Your task to perform on an android device: Add asus zenbook to the cart on ebay.com Image 0: 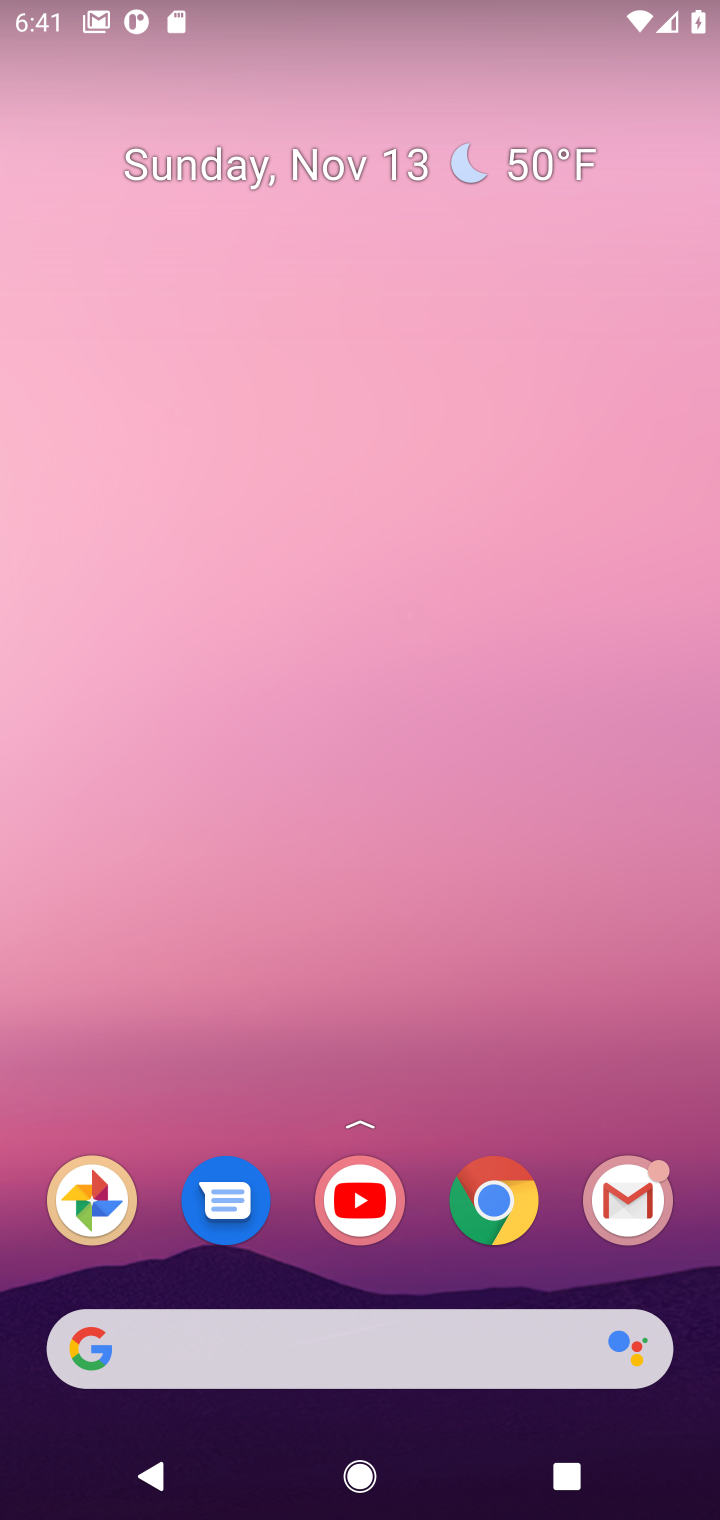
Step 0: click (483, 1218)
Your task to perform on an android device: Add asus zenbook to the cart on ebay.com Image 1: 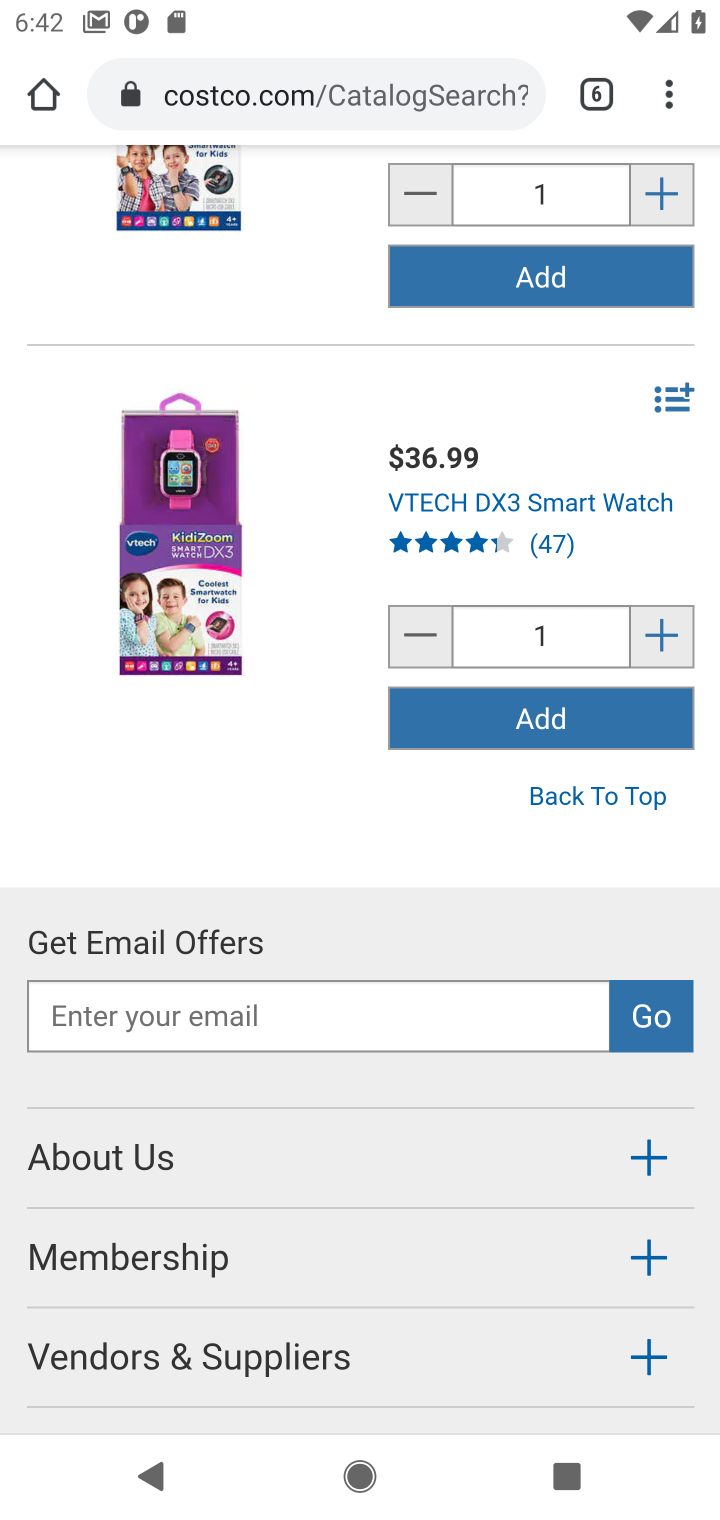
Step 1: click (606, 105)
Your task to perform on an android device: Add asus zenbook to the cart on ebay.com Image 2: 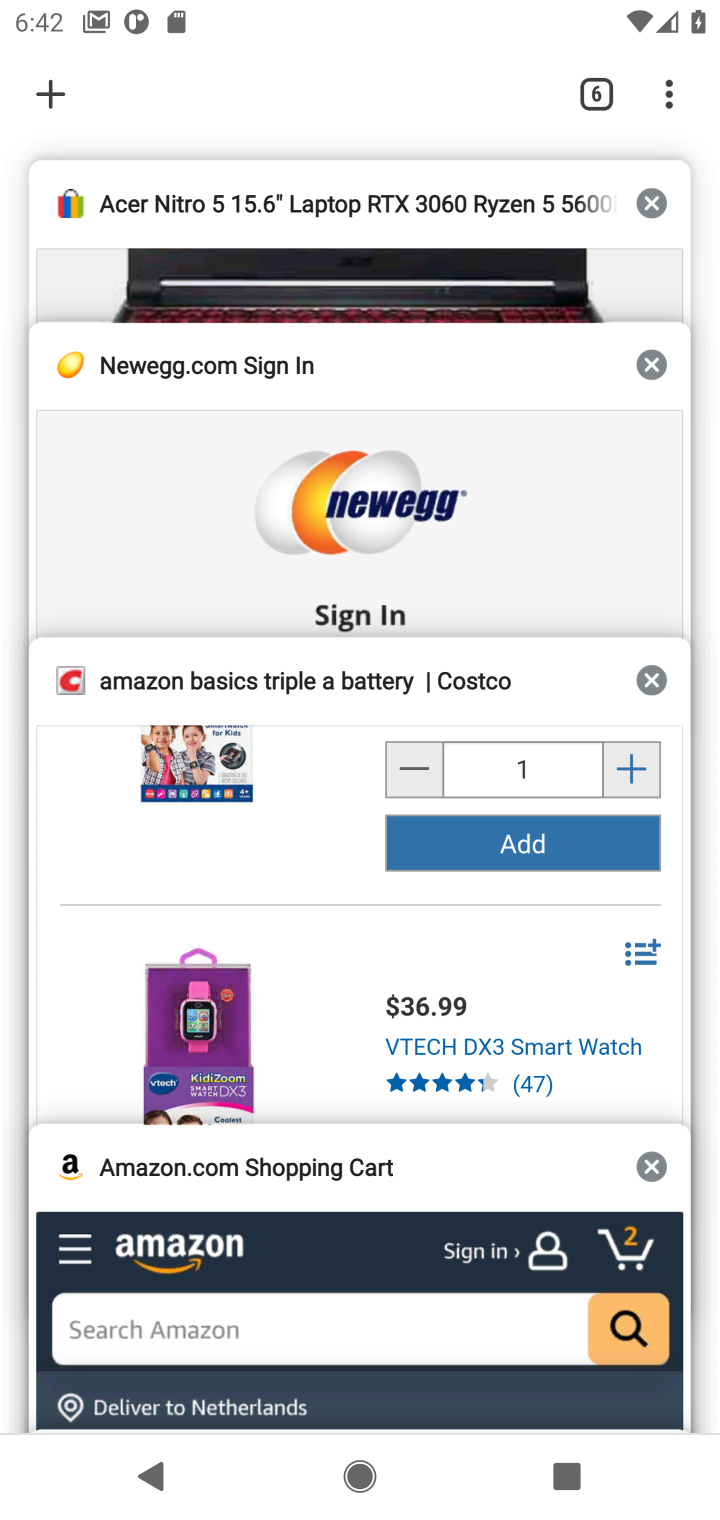
Step 2: click (269, 242)
Your task to perform on an android device: Add asus zenbook to the cart on ebay.com Image 3: 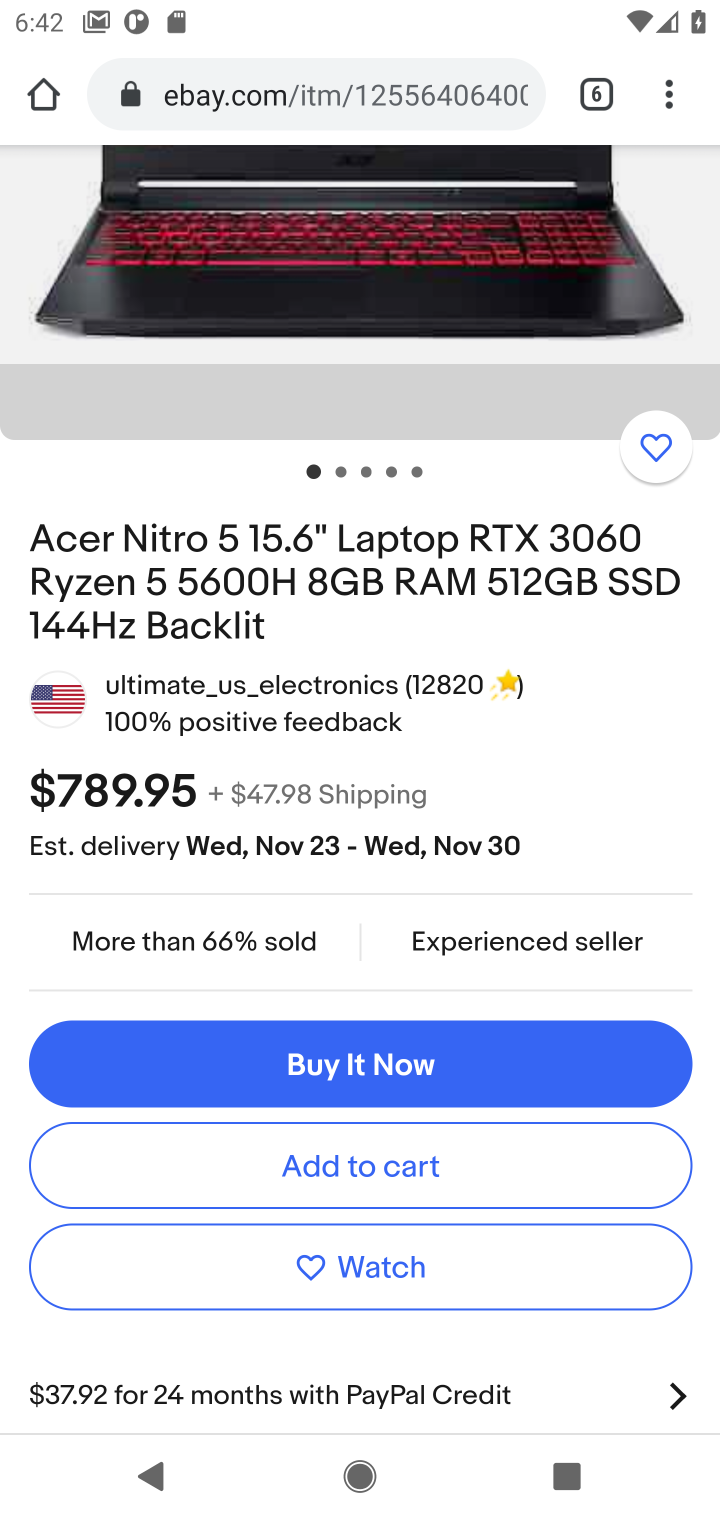
Step 3: drag from (327, 368) to (220, 1293)
Your task to perform on an android device: Add asus zenbook to the cart on ebay.com Image 4: 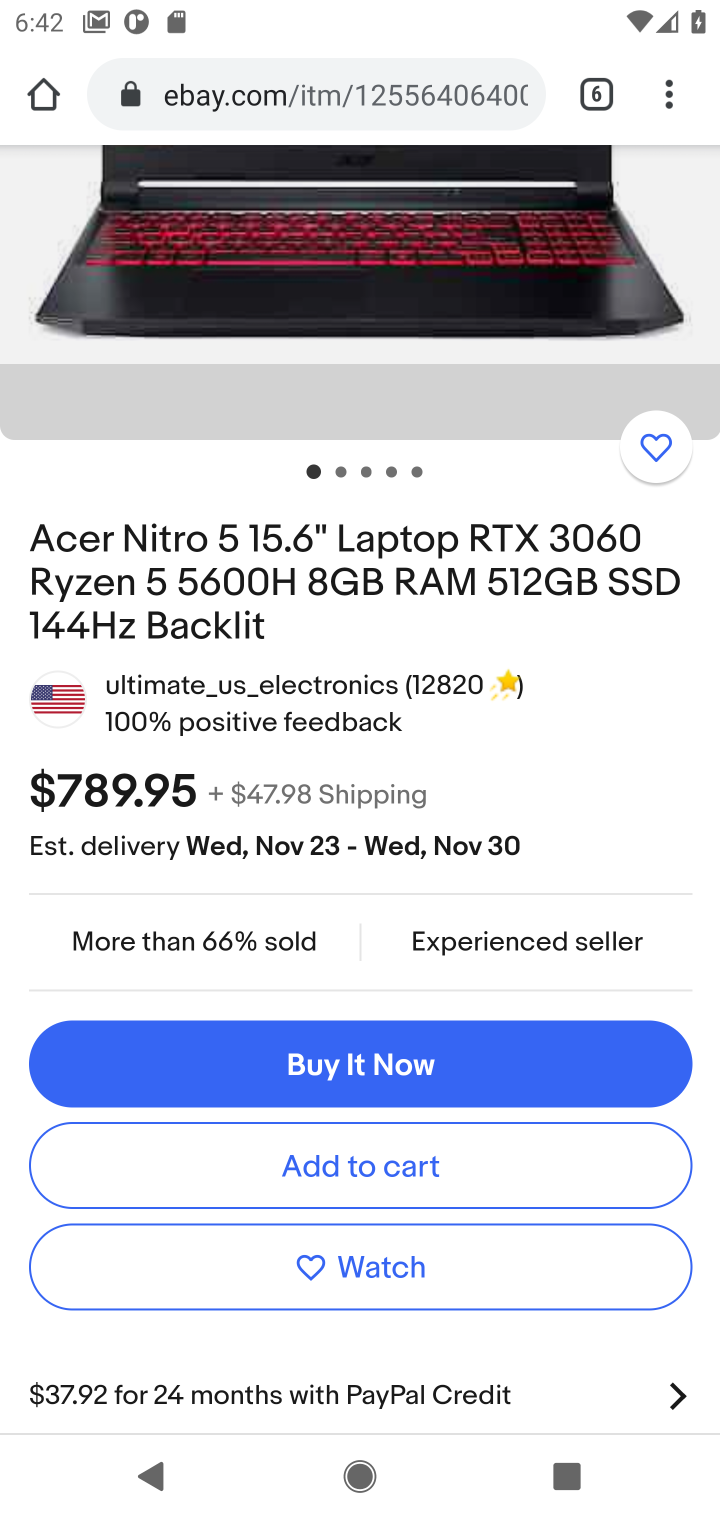
Step 4: drag from (495, 209) to (489, 789)
Your task to perform on an android device: Add asus zenbook to the cart on ebay.com Image 5: 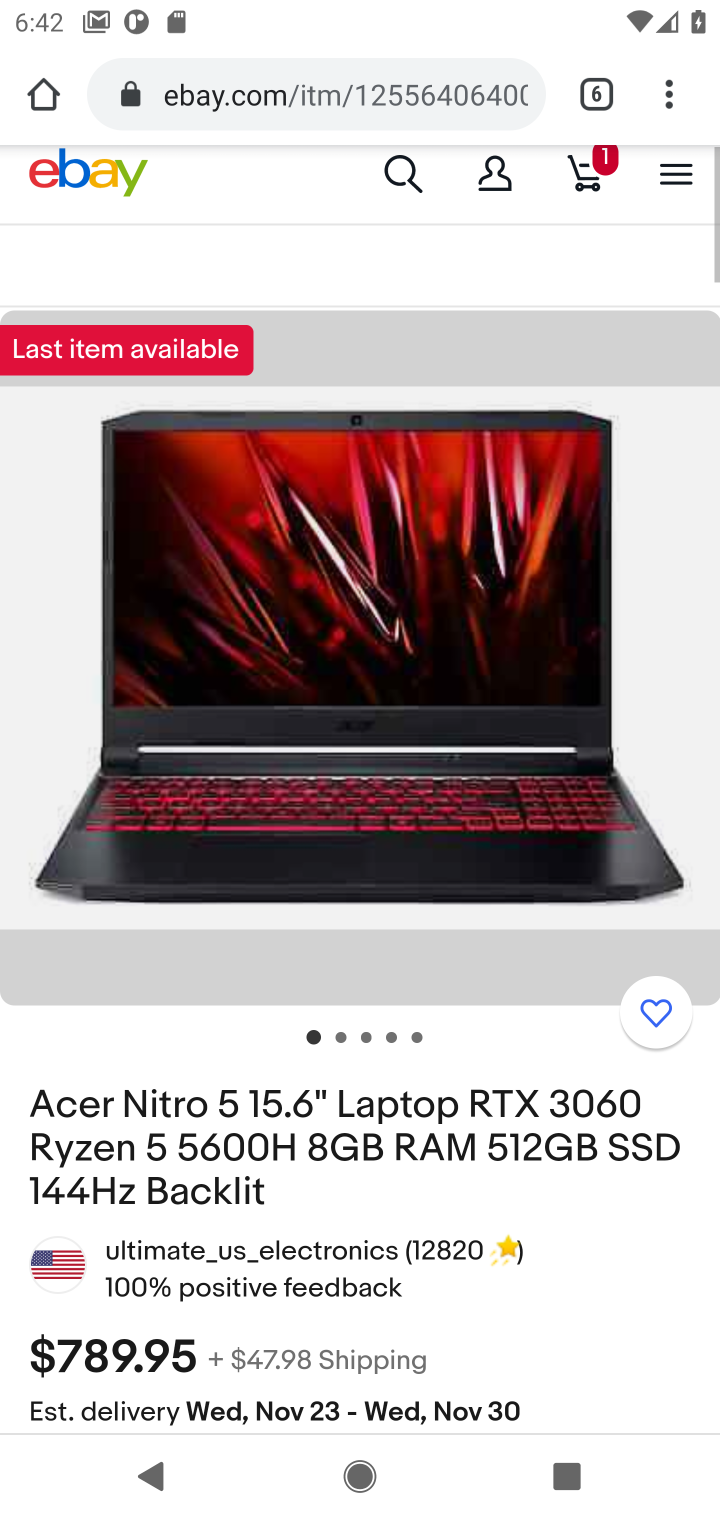
Step 5: drag from (585, 190) to (438, 842)
Your task to perform on an android device: Add asus zenbook to the cart on ebay.com Image 6: 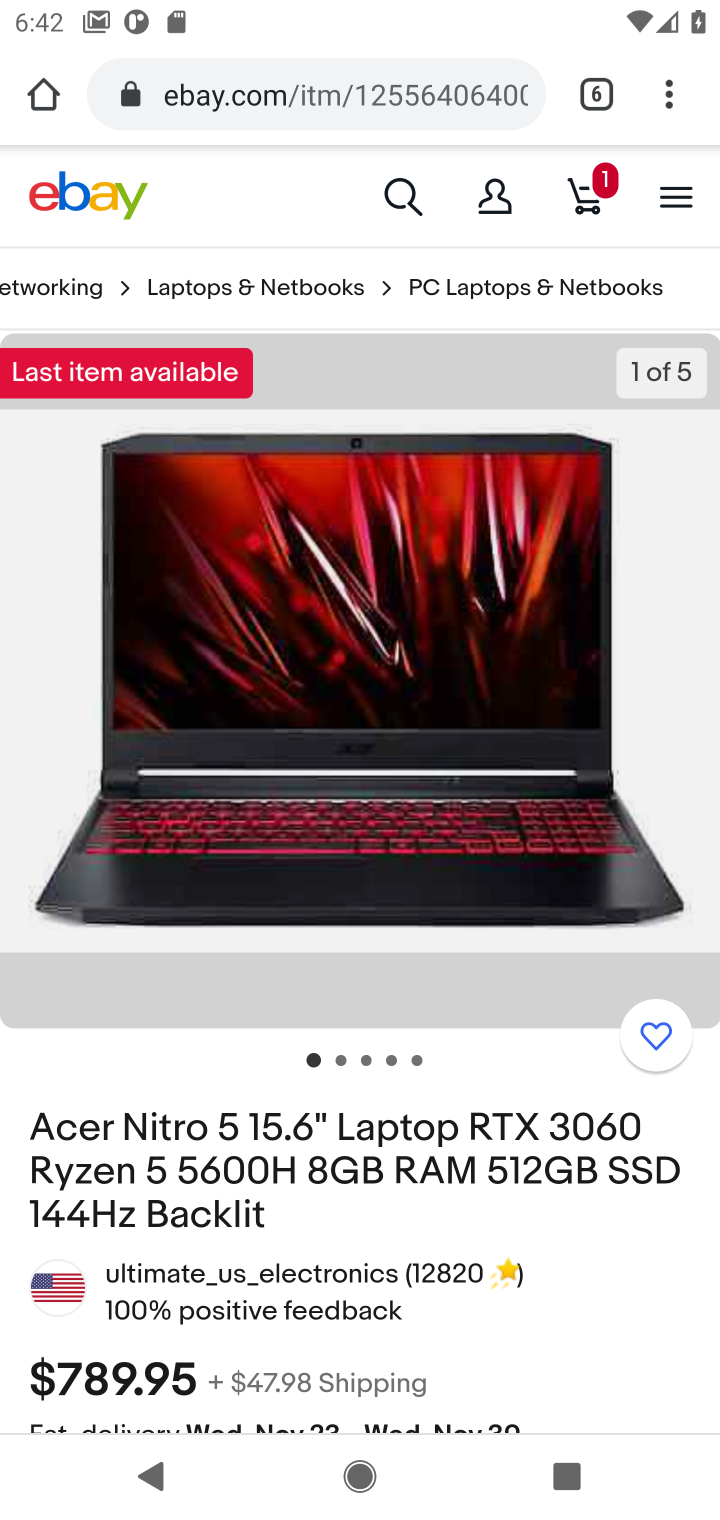
Step 6: click (399, 188)
Your task to perform on an android device: Add asus zenbook to the cart on ebay.com Image 7: 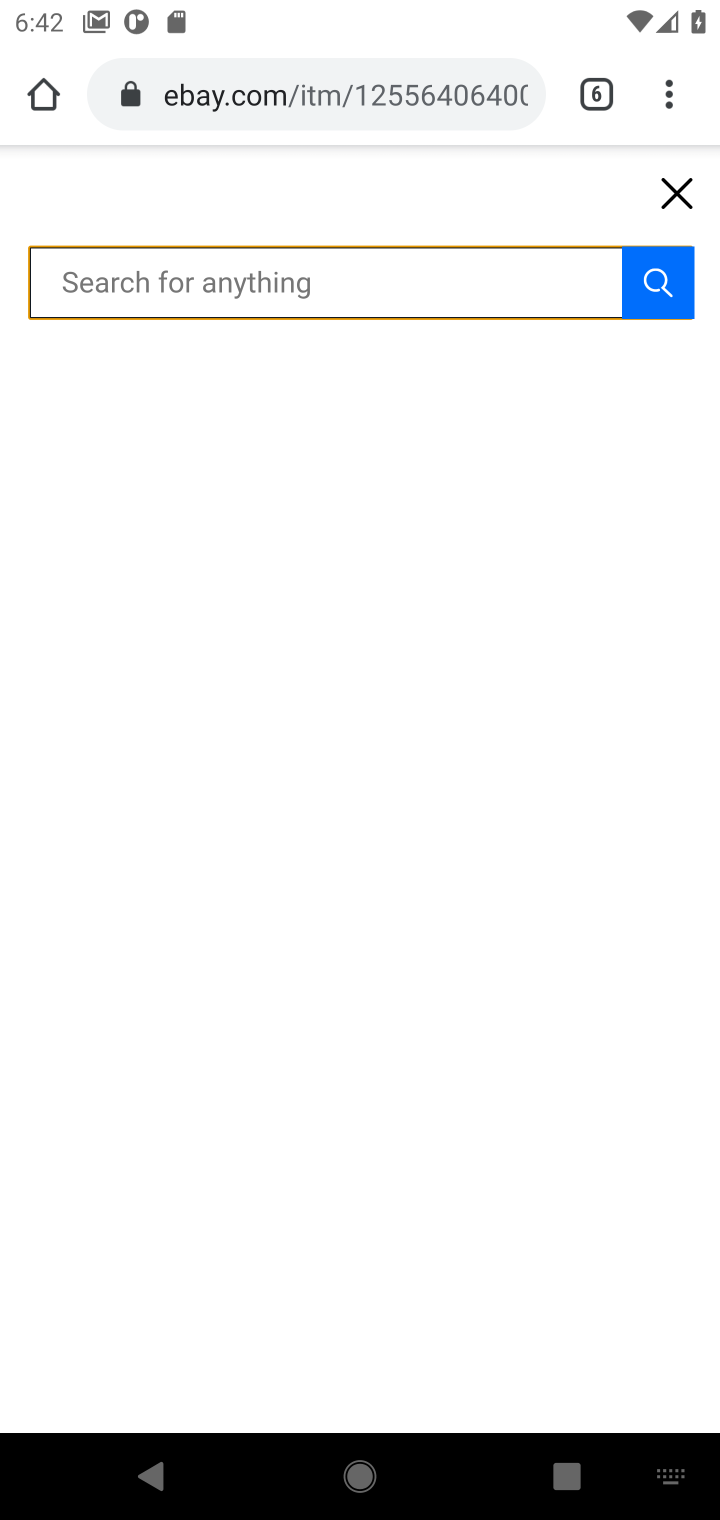
Step 7: click (299, 277)
Your task to perform on an android device: Add asus zenbook to the cart on ebay.com Image 8: 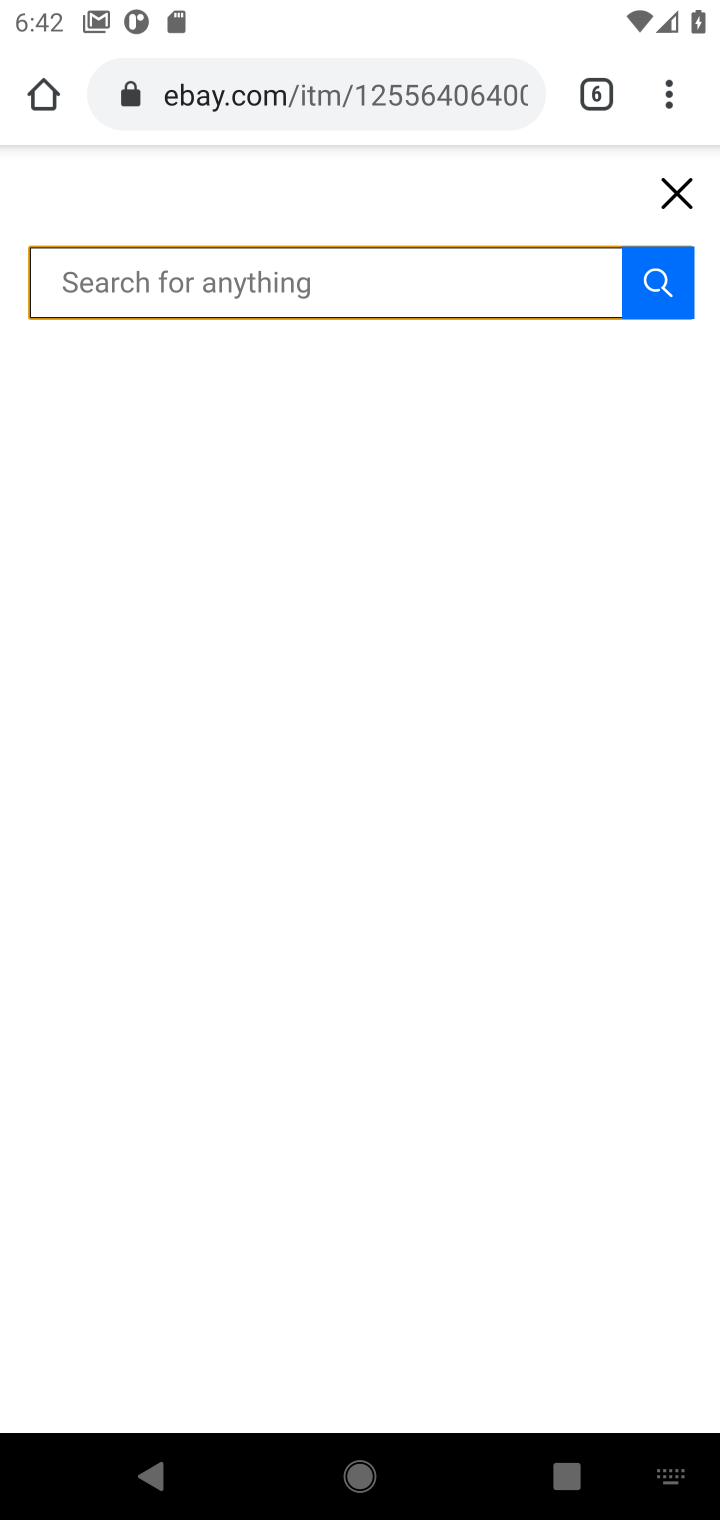
Step 8: type "asus zenbook"
Your task to perform on an android device: Add asus zenbook to the cart on ebay.com Image 9: 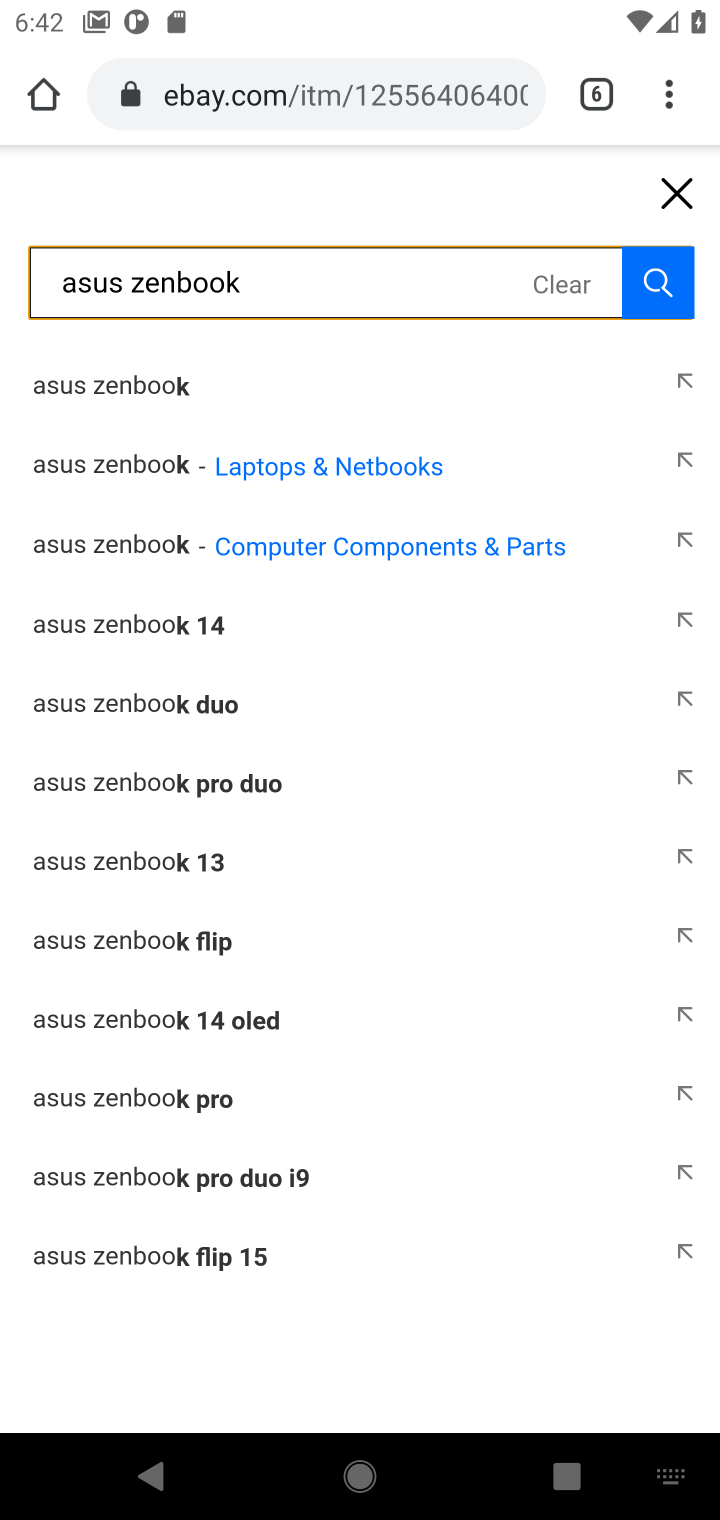
Step 9: click (651, 268)
Your task to perform on an android device: Add asus zenbook to the cart on ebay.com Image 10: 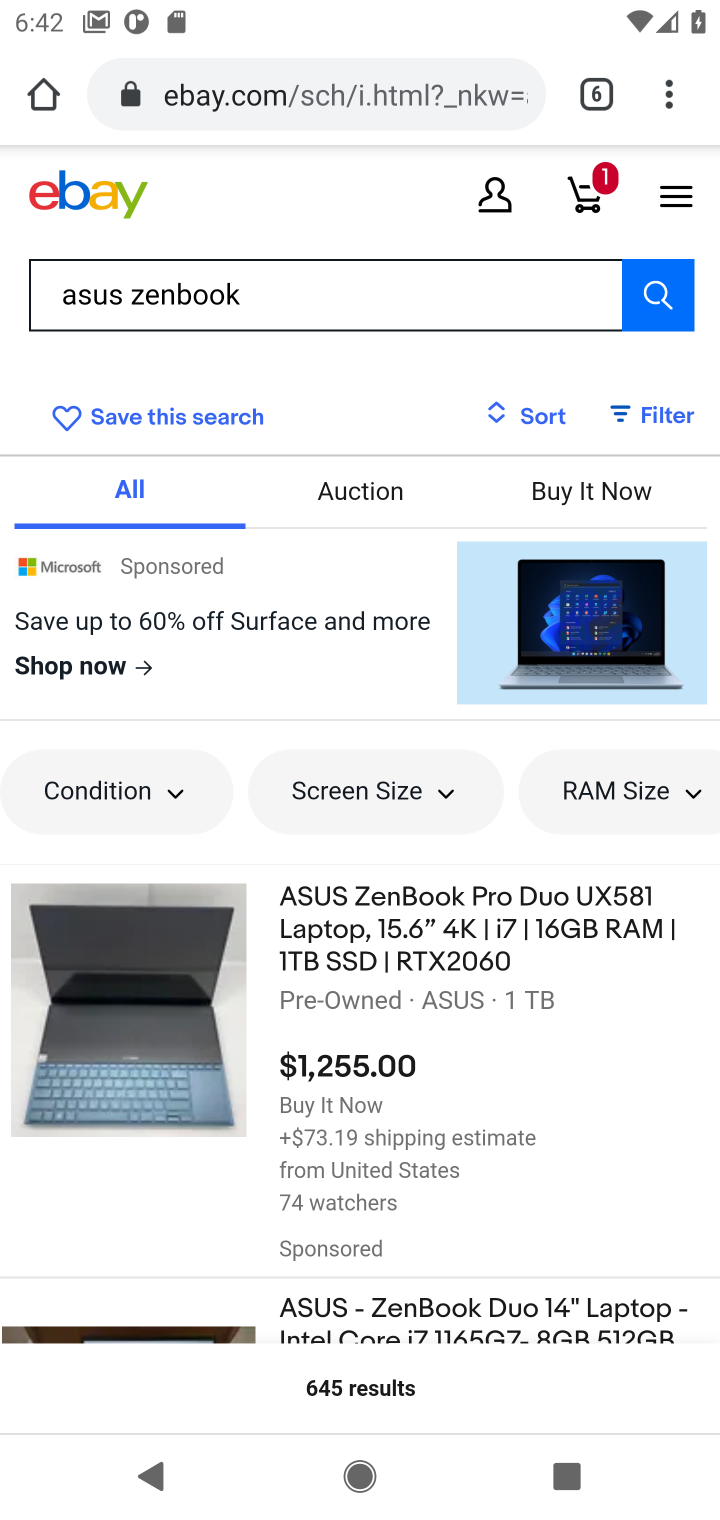
Step 10: click (465, 942)
Your task to perform on an android device: Add asus zenbook to the cart on ebay.com Image 11: 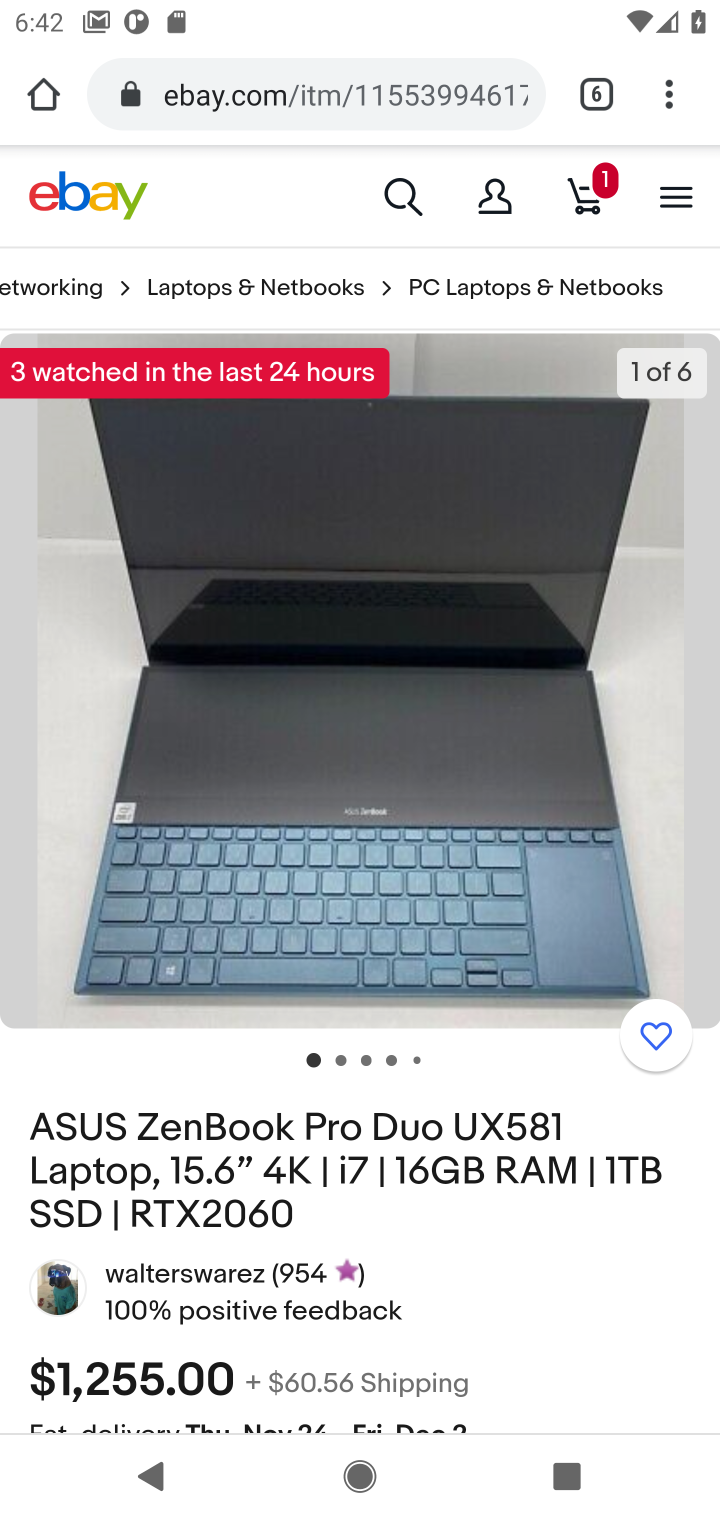
Step 11: drag from (509, 1345) to (541, 619)
Your task to perform on an android device: Add asus zenbook to the cart on ebay.com Image 12: 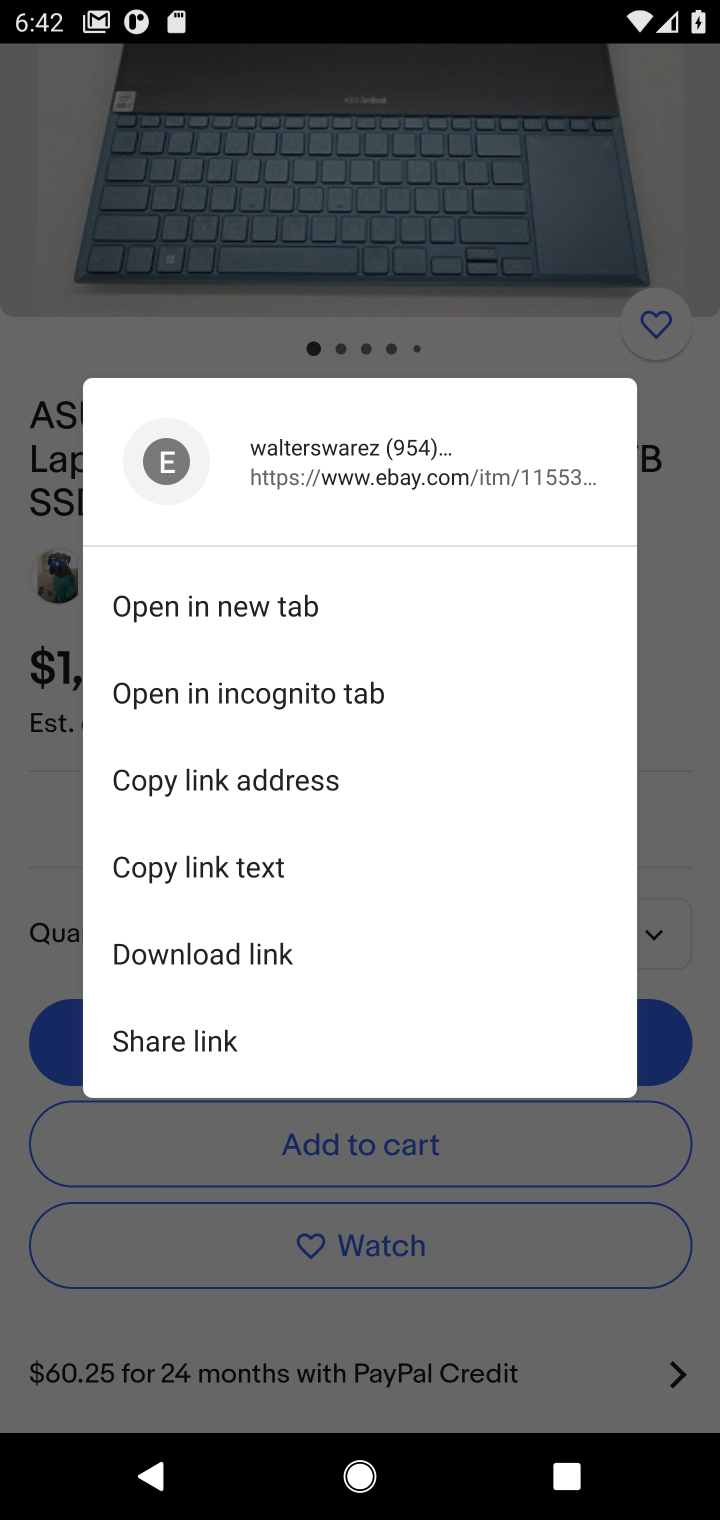
Step 12: click (568, 1325)
Your task to perform on an android device: Add asus zenbook to the cart on ebay.com Image 13: 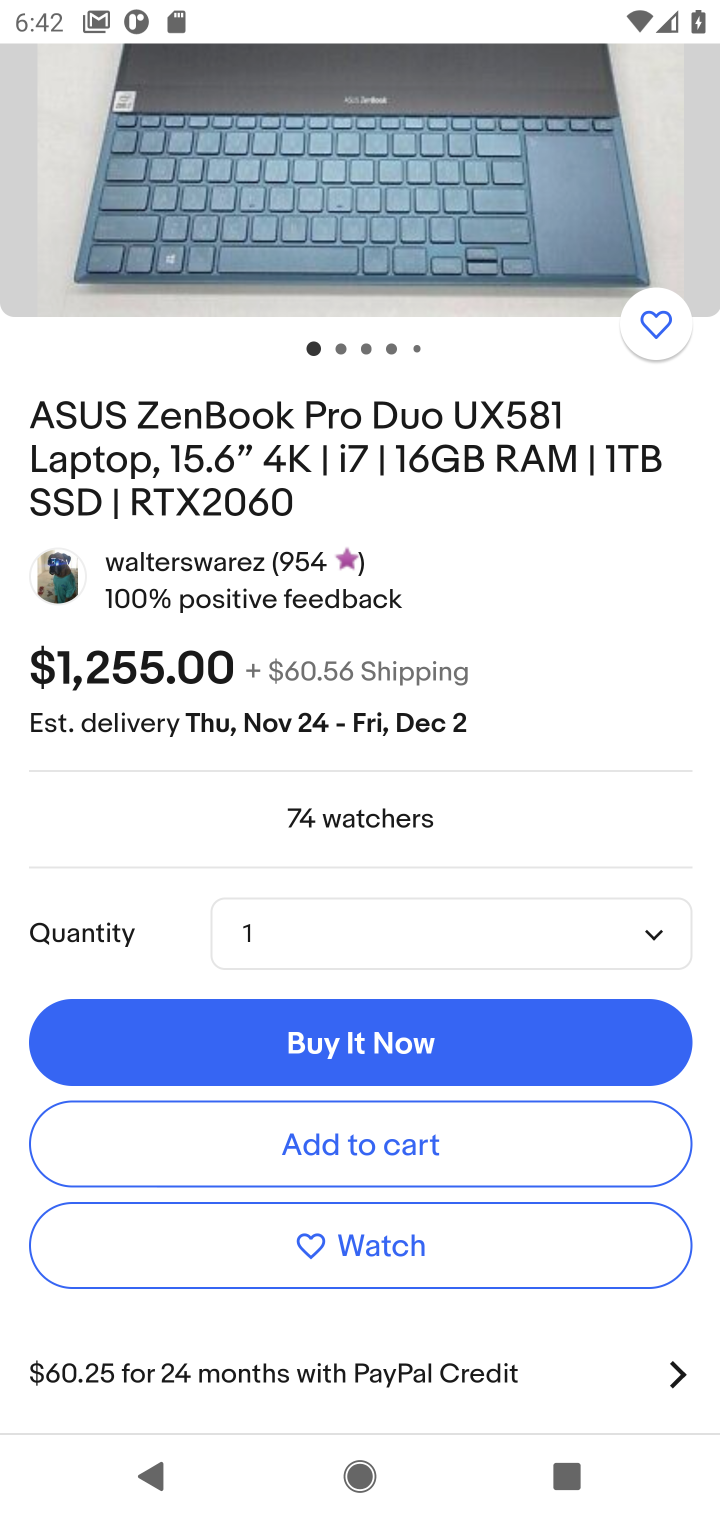
Step 13: click (368, 1161)
Your task to perform on an android device: Add asus zenbook to the cart on ebay.com Image 14: 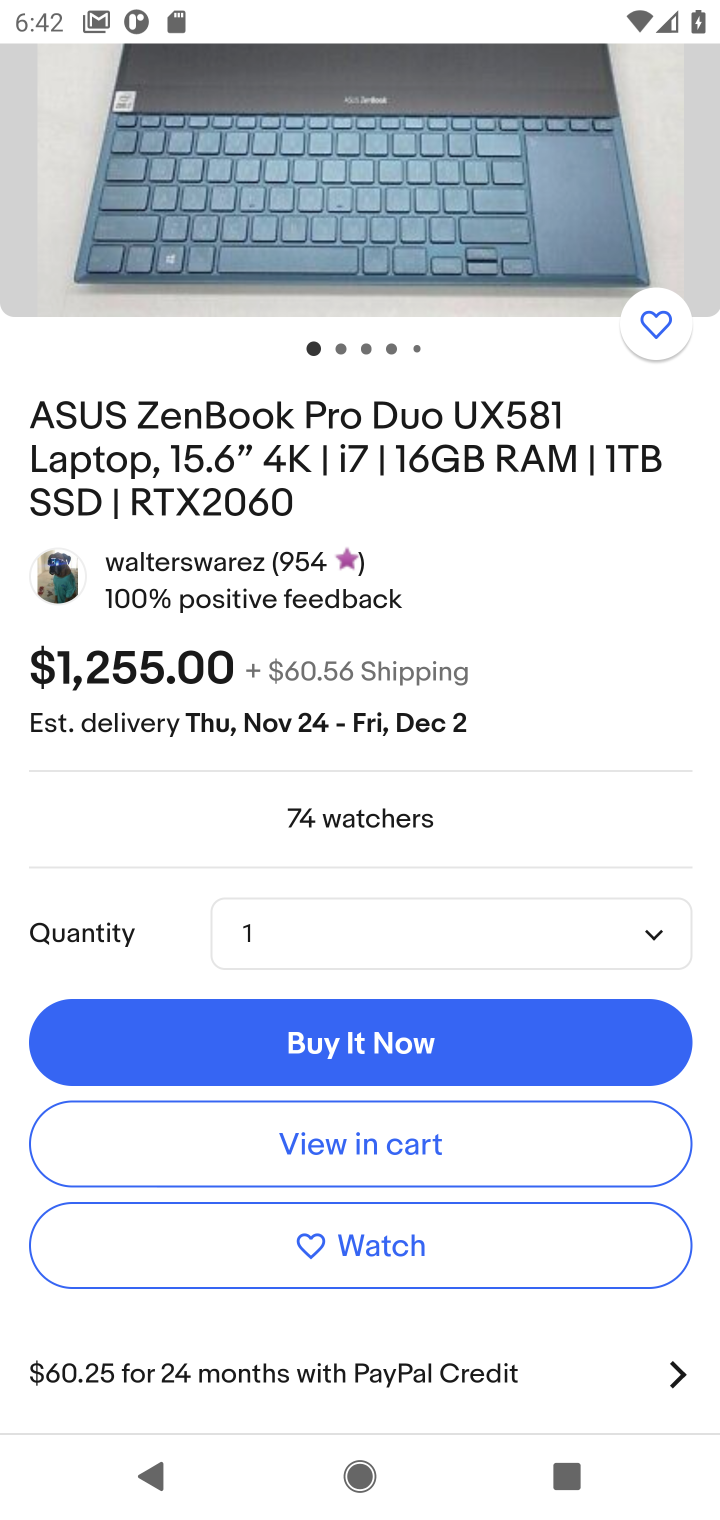
Step 14: task complete